Your task to perform on an android device: find which apps use the phone's location Image 0: 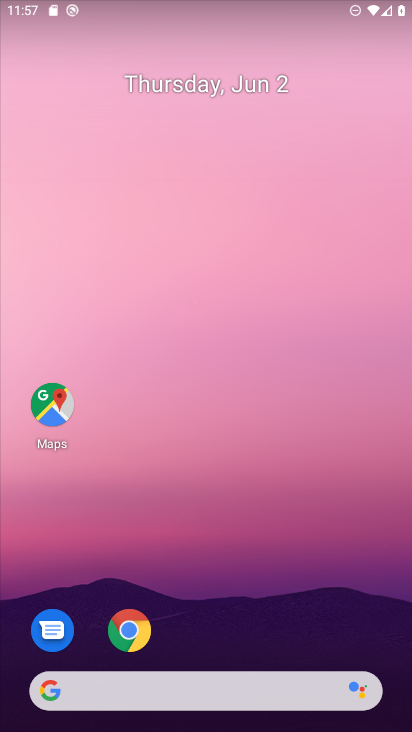
Step 0: drag from (275, 644) to (194, 25)
Your task to perform on an android device: find which apps use the phone's location Image 1: 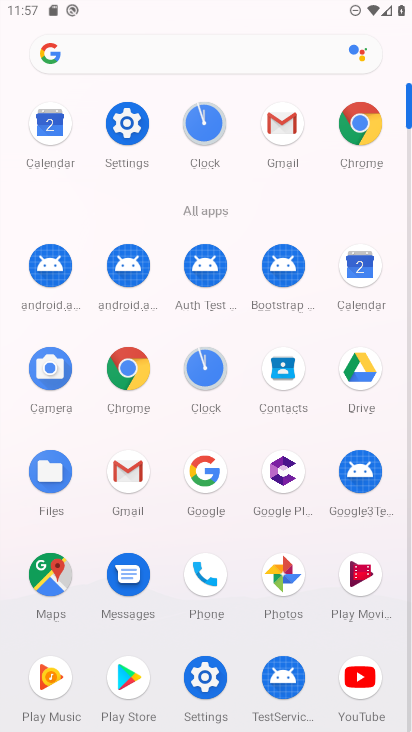
Step 1: click (206, 667)
Your task to perform on an android device: find which apps use the phone's location Image 2: 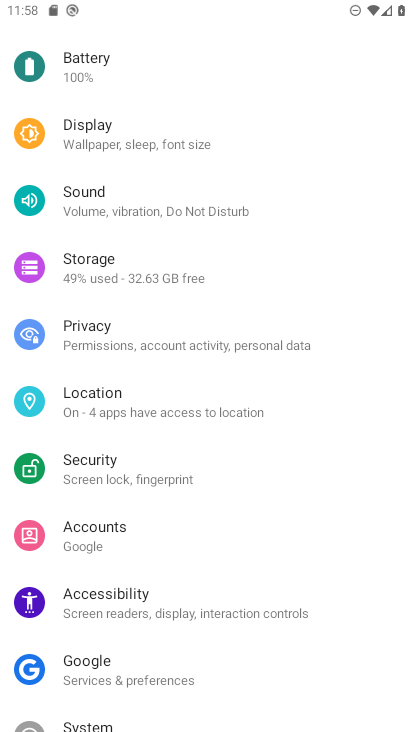
Step 2: click (212, 400)
Your task to perform on an android device: find which apps use the phone's location Image 3: 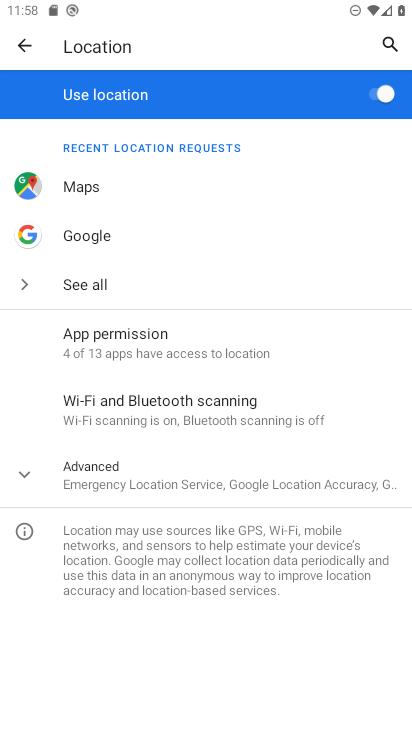
Step 3: click (209, 355)
Your task to perform on an android device: find which apps use the phone's location Image 4: 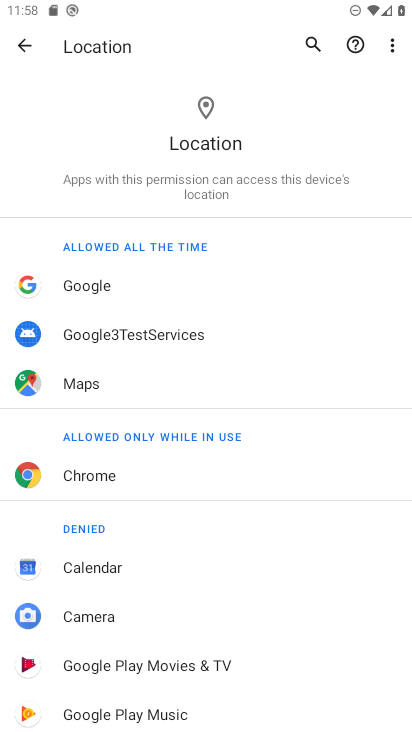
Step 4: task complete